Your task to perform on an android device: toggle translation in the chrome app Image 0: 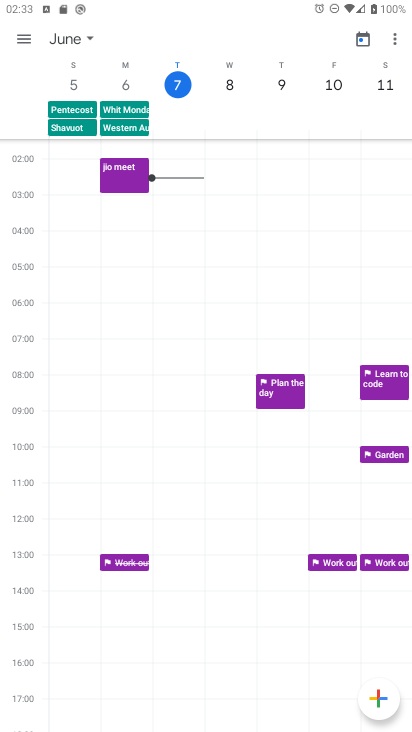
Step 0: press home button
Your task to perform on an android device: toggle translation in the chrome app Image 1: 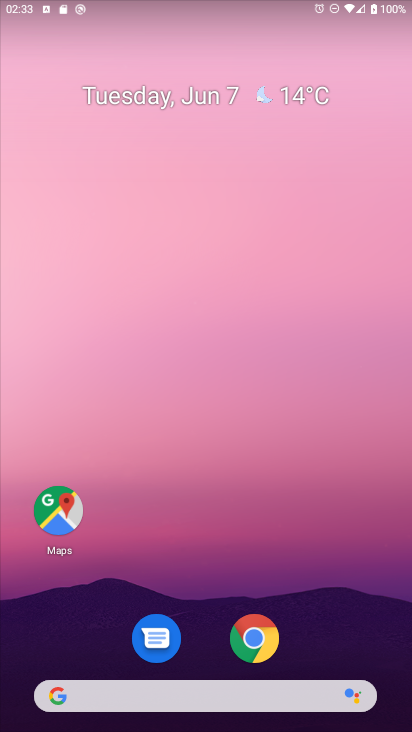
Step 1: drag from (260, 714) to (122, 47)
Your task to perform on an android device: toggle translation in the chrome app Image 2: 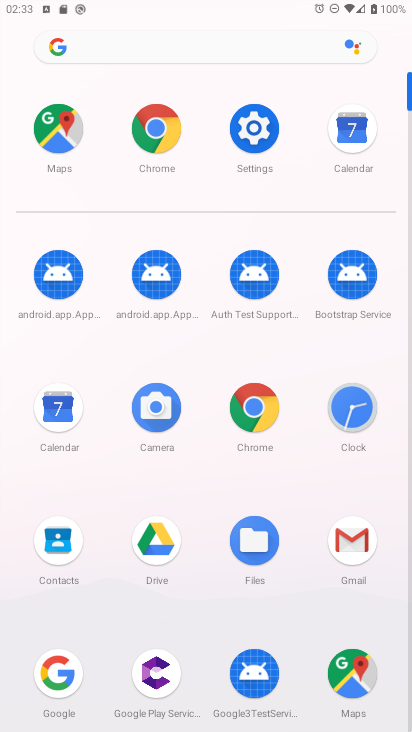
Step 2: click (151, 111)
Your task to perform on an android device: toggle translation in the chrome app Image 3: 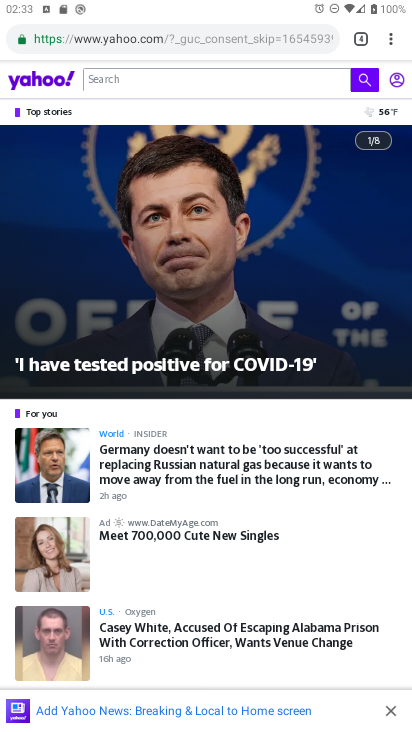
Step 3: click (388, 40)
Your task to perform on an android device: toggle translation in the chrome app Image 4: 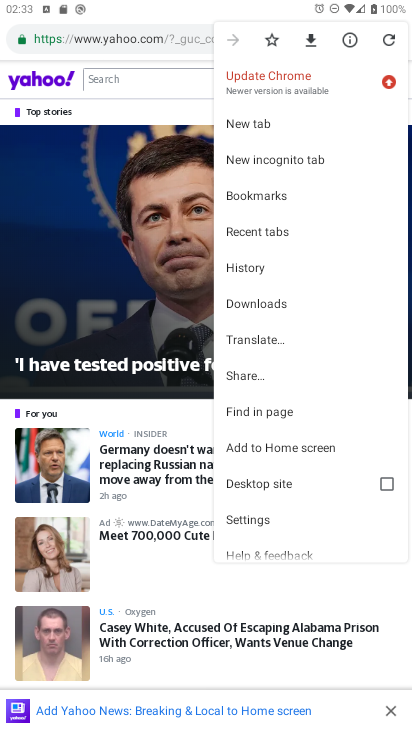
Step 4: click (241, 521)
Your task to perform on an android device: toggle translation in the chrome app Image 5: 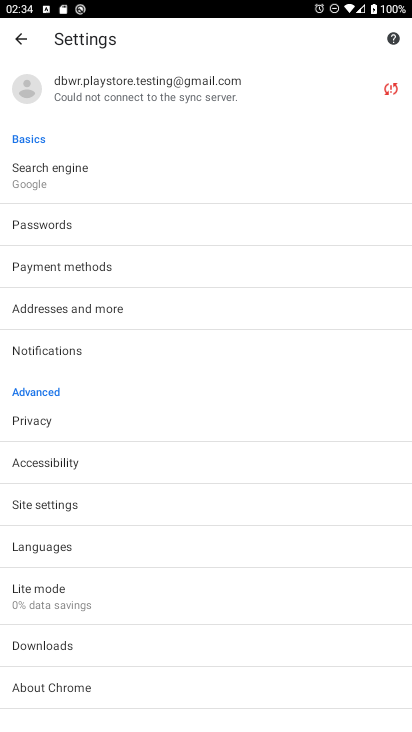
Step 5: click (113, 499)
Your task to perform on an android device: toggle translation in the chrome app Image 6: 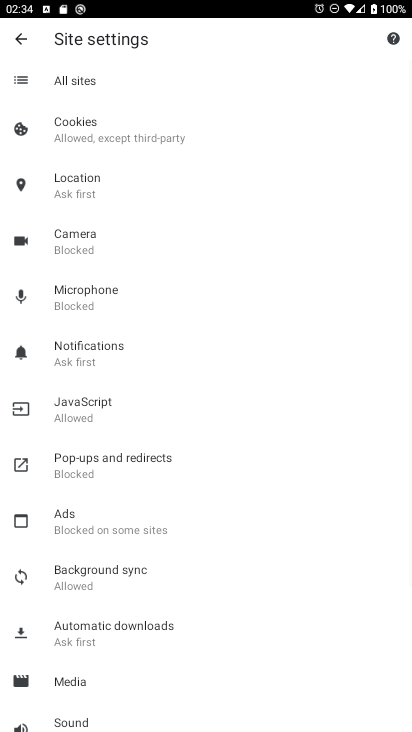
Step 6: click (15, 45)
Your task to perform on an android device: toggle translation in the chrome app Image 7: 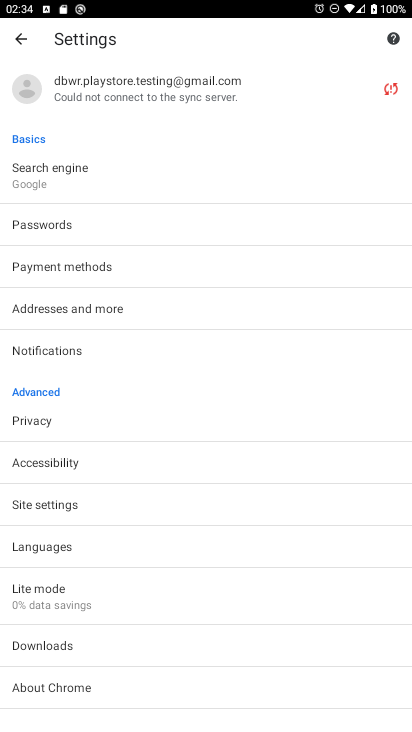
Step 7: click (75, 543)
Your task to perform on an android device: toggle translation in the chrome app Image 8: 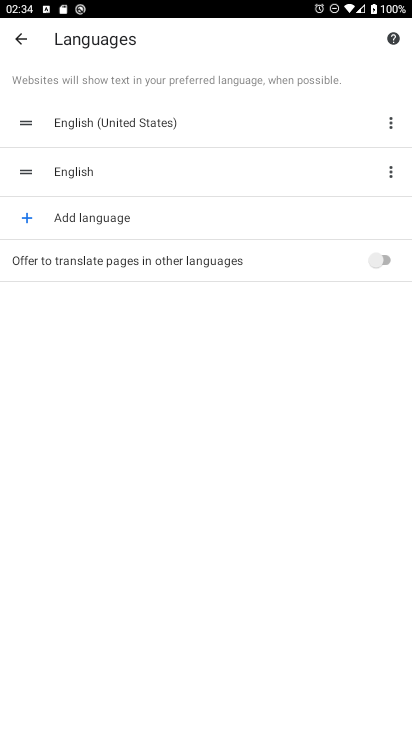
Step 8: click (325, 263)
Your task to perform on an android device: toggle translation in the chrome app Image 9: 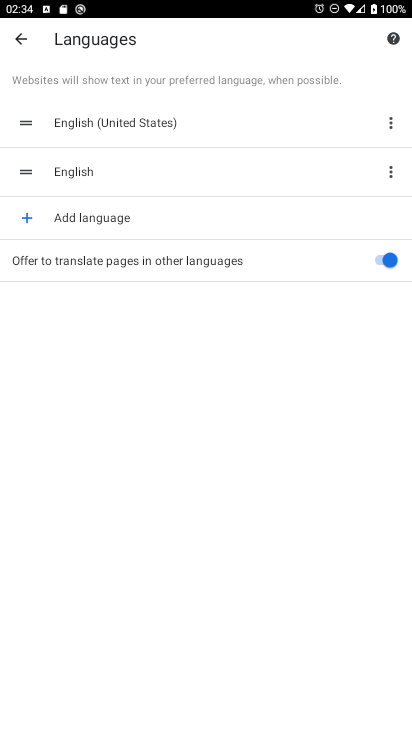
Step 9: task complete